Your task to perform on an android device: turn off smart reply in the gmail app Image 0: 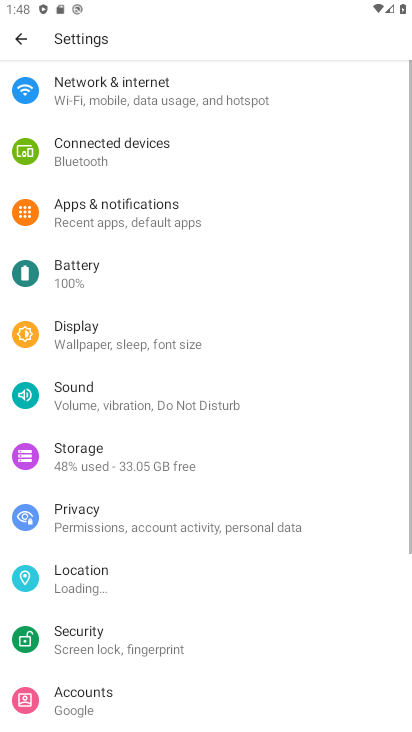
Step 0: press home button
Your task to perform on an android device: turn off smart reply in the gmail app Image 1: 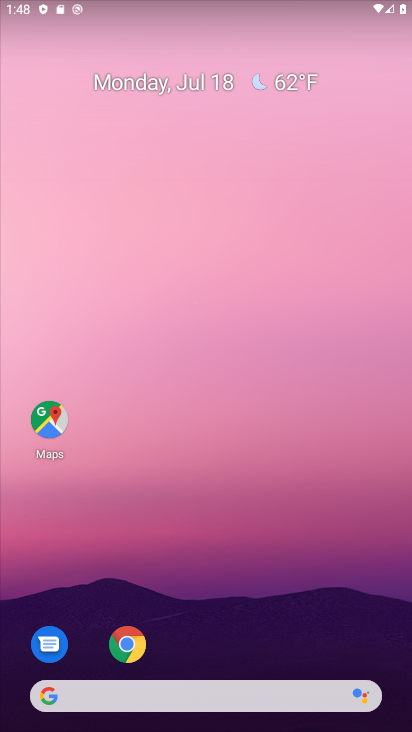
Step 1: drag from (214, 207) to (240, 84)
Your task to perform on an android device: turn off smart reply in the gmail app Image 2: 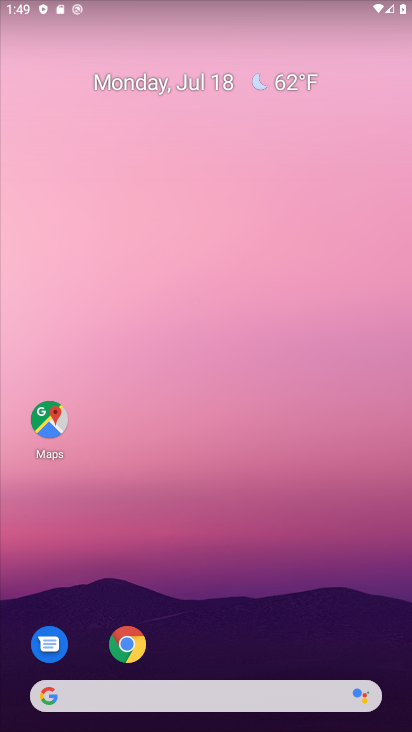
Step 2: drag from (242, 666) to (284, 114)
Your task to perform on an android device: turn off smart reply in the gmail app Image 3: 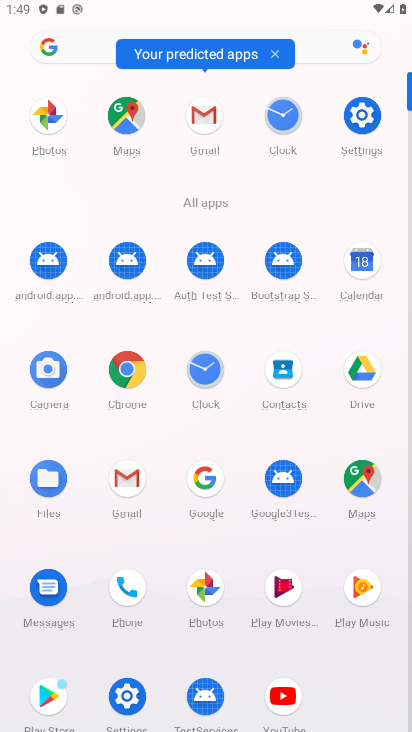
Step 3: click (120, 489)
Your task to perform on an android device: turn off smart reply in the gmail app Image 4: 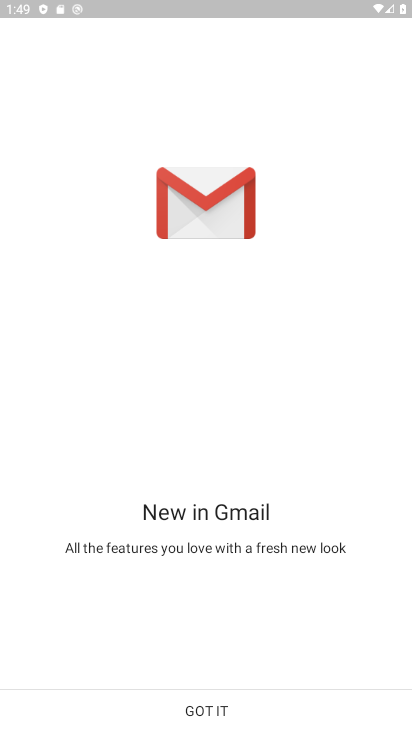
Step 4: click (235, 722)
Your task to perform on an android device: turn off smart reply in the gmail app Image 5: 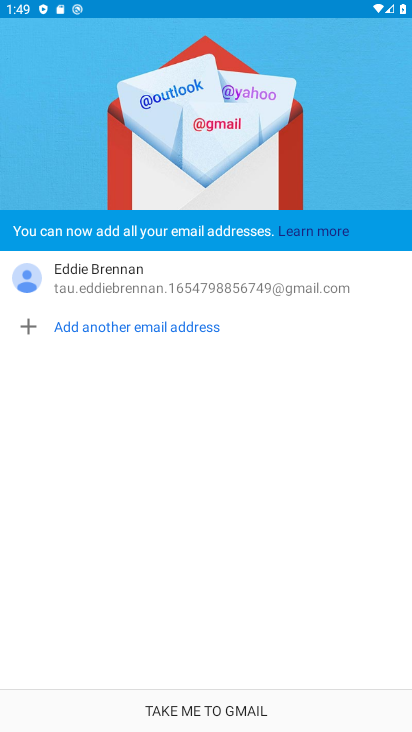
Step 5: click (235, 711)
Your task to perform on an android device: turn off smart reply in the gmail app Image 6: 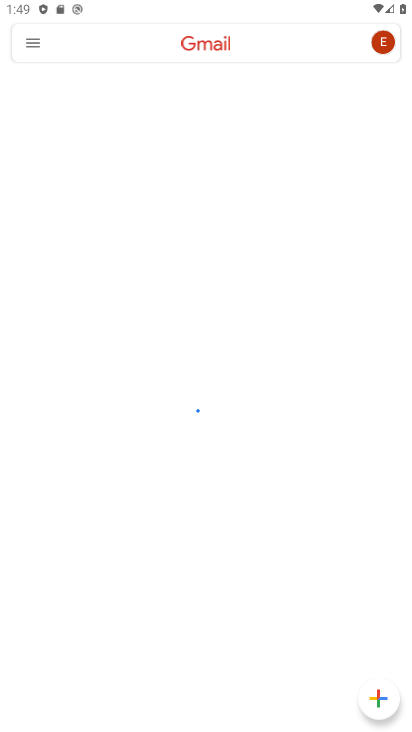
Step 6: click (40, 44)
Your task to perform on an android device: turn off smart reply in the gmail app Image 7: 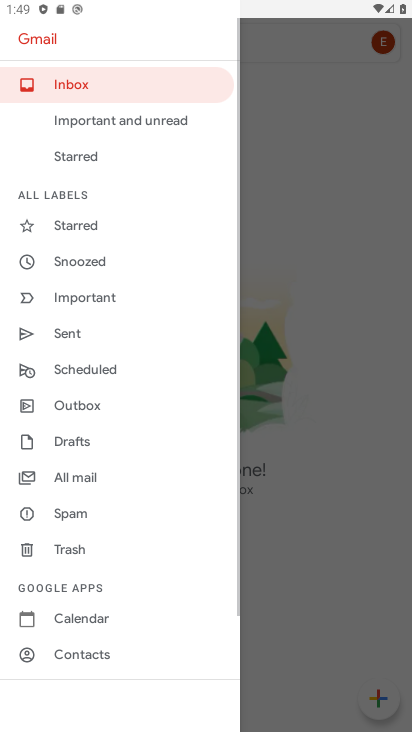
Step 7: drag from (99, 635) to (136, 227)
Your task to perform on an android device: turn off smart reply in the gmail app Image 8: 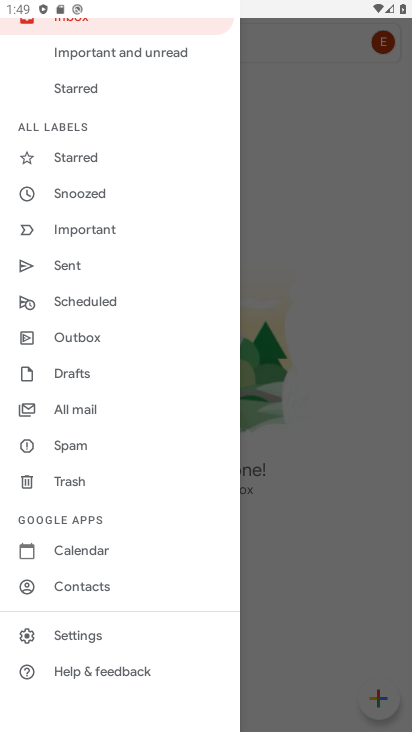
Step 8: click (119, 638)
Your task to perform on an android device: turn off smart reply in the gmail app Image 9: 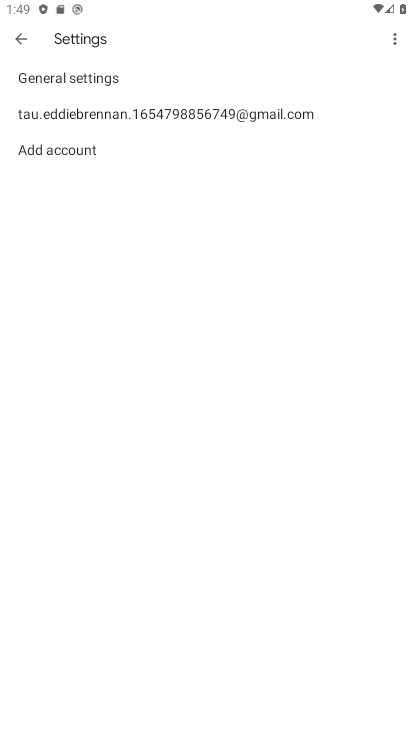
Step 9: click (222, 120)
Your task to perform on an android device: turn off smart reply in the gmail app Image 10: 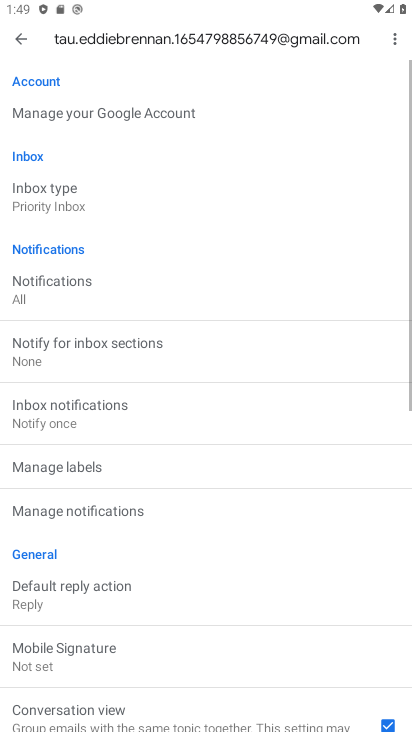
Step 10: drag from (208, 458) to (245, 86)
Your task to perform on an android device: turn off smart reply in the gmail app Image 11: 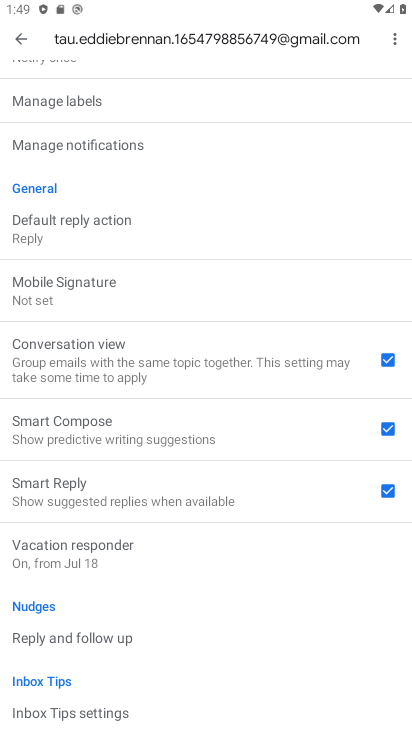
Step 11: click (386, 491)
Your task to perform on an android device: turn off smart reply in the gmail app Image 12: 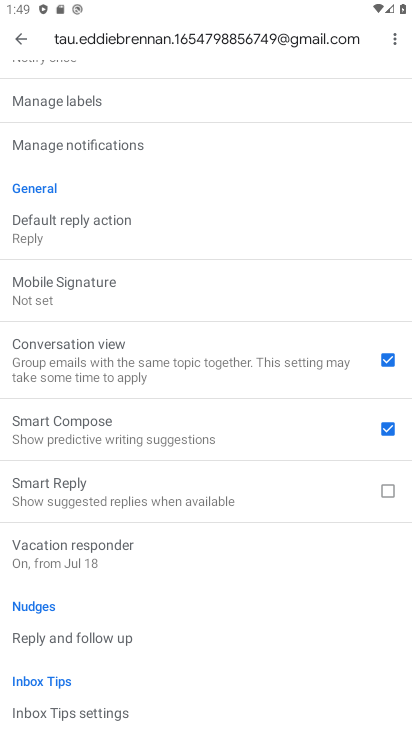
Step 12: task complete